Your task to perform on an android device: allow notifications from all sites in the chrome app Image 0: 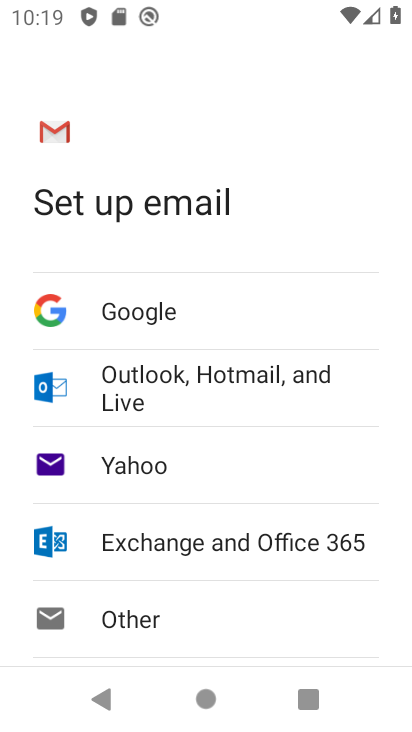
Step 0: press home button
Your task to perform on an android device: allow notifications from all sites in the chrome app Image 1: 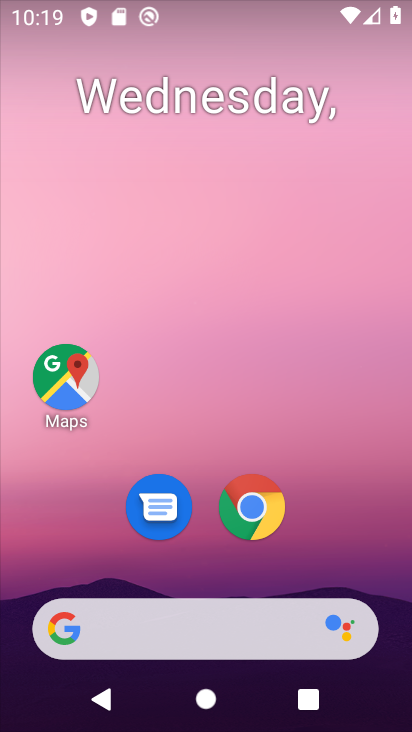
Step 1: drag from (254, 618) to (334, 67)
Your task to perform on an android device: allow notifications from all sites in the chrome app Image 2: 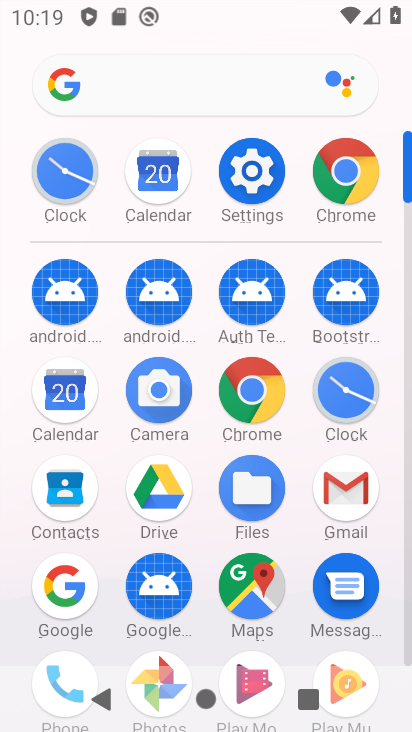
Step 2: click (244, 416)
Your task to perform on an android device: allow notifications from all sites in the chrome app Image 3: 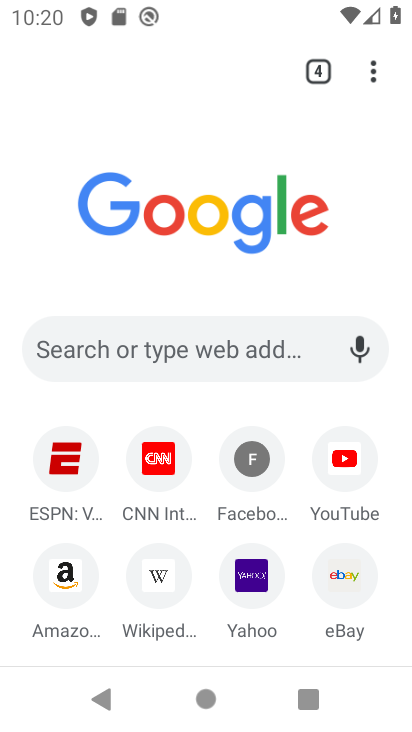
Step 3: click (362, 76)
Your task to perform on an android device: allow notifications from all sites in the chrome app Image 4: 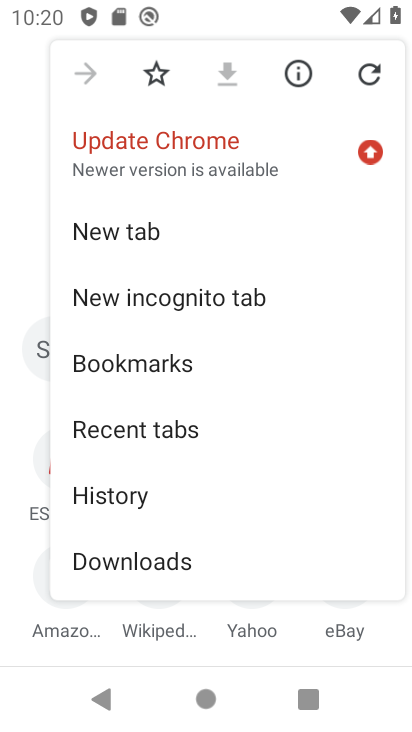
Step 4: drag from (146, 465) to (241, 271)
Your task to perform on an android device: allow notifications from all sites in the chrome app Image 5: 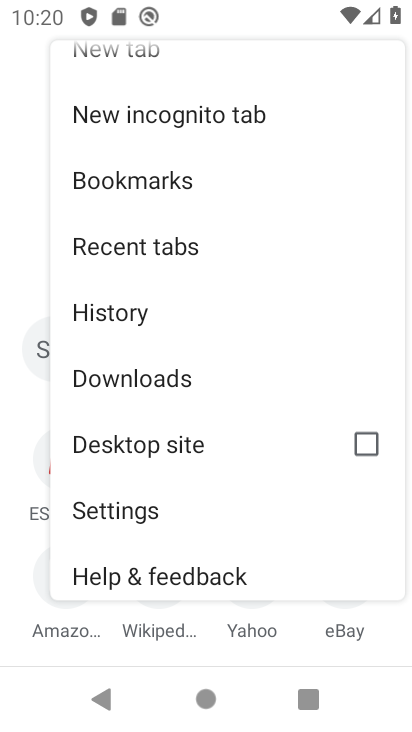
Step 5: click (105, 521)
Your task to perform on an android device: allow notifications from all sites in the chrome app Image 6: 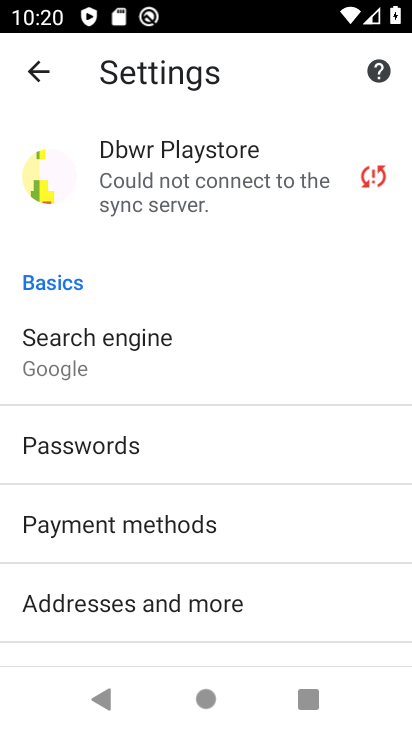
Step 6: drag from (113, 588) to (225, 273)
Your task to perform on an android device: allow notifications from all sites in the chrome app Image 7: 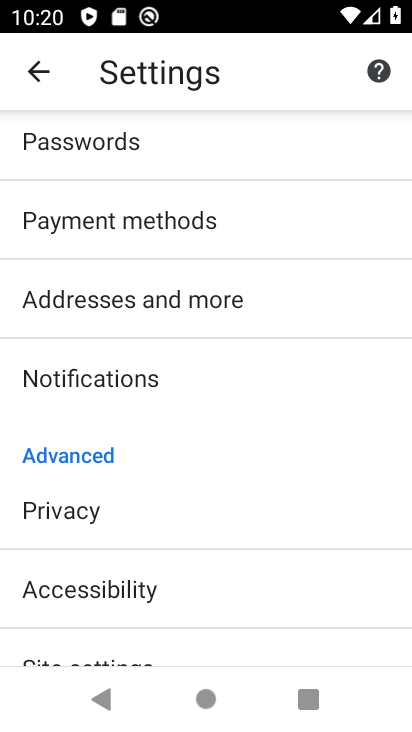
Step 7: drag from (115, 595) to (172, 370)
Your task to perform on an android device: allow notifications from all sites in the chrome app Image 8: 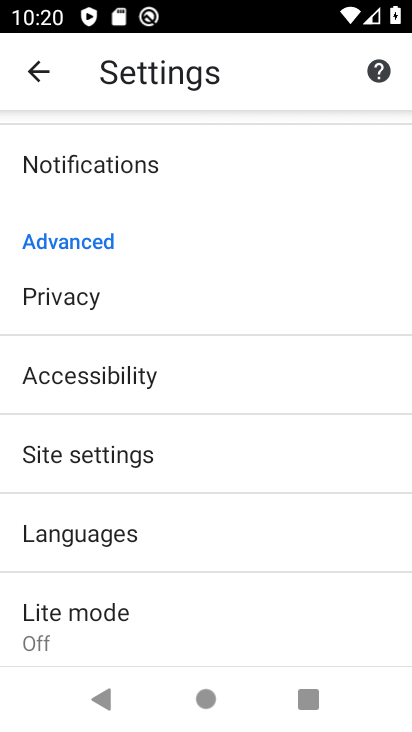
Step 8: drag from (151, 543) to (171, 429)
Your task to perform on an android device: allow notifications from all sites in the chrome app Image 9: 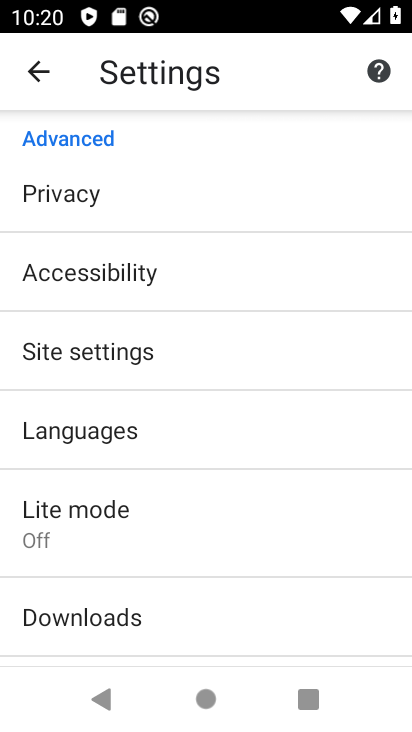
Step 9: click (83, 357)
Your task to perform on an android device: allow notifications from all sites in the chrome app Image 10: 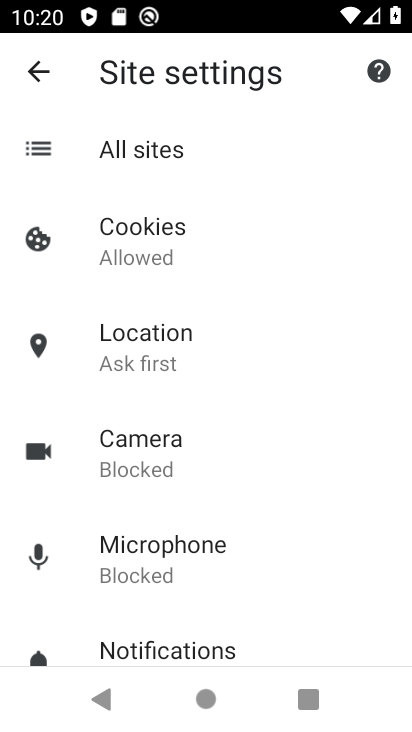
Step 10: click (170, 520)
Your task to perform on an android device: allow notifications from all sites in the chrome app Image 11: 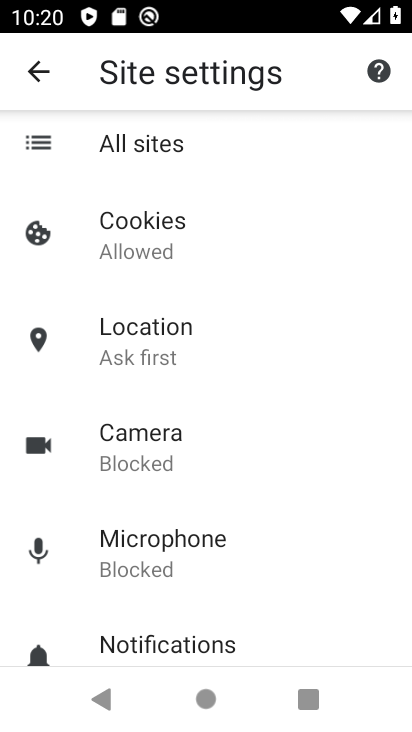
Step 11: click (148, 622)
Your task to perform on an android device: allow notifications from all sites in the chrome app Image 12: 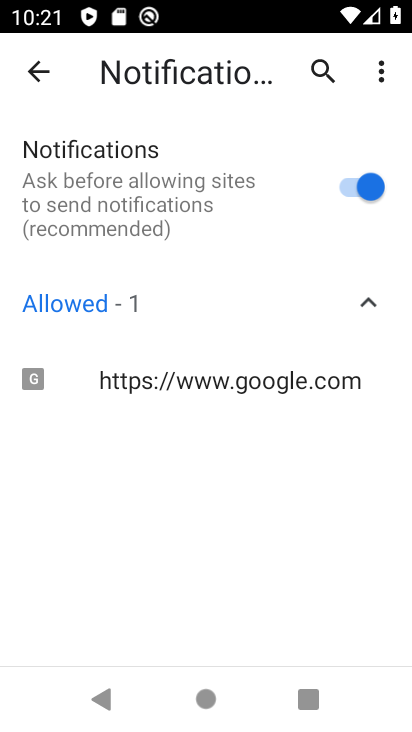
Step 12: click (310, 205)
Your task to perform on an android device: allow notifications from all sites in the chrome app Image 13: 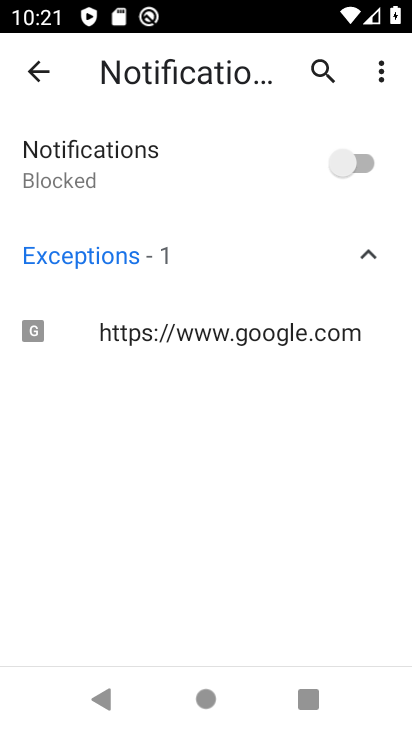
Step 13: click (309, 205)
Your task to perform on an android device: allow notifications from all sites in the chrome app Image 14: 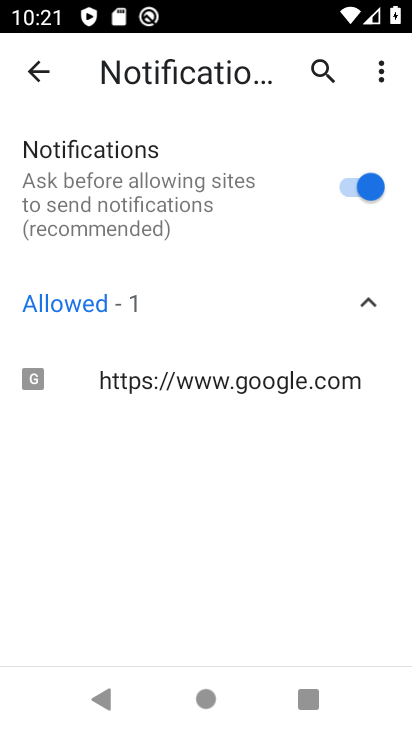
Step 14: task complete